Your task to perform on an android device: turn off location Image 0: 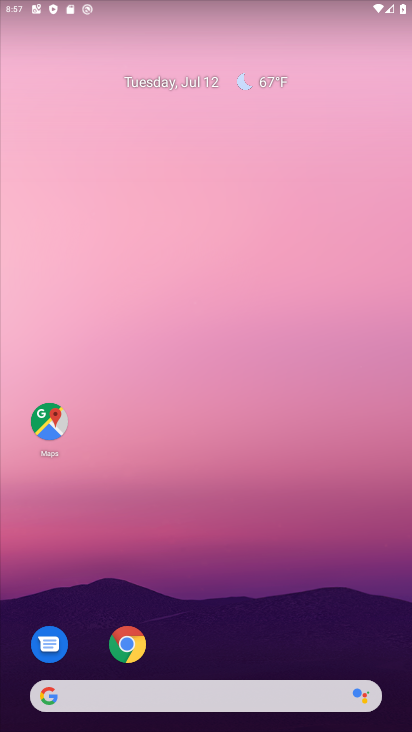
Step 0: click (341, 15)
Your task to perform on an android device: turn off location Image 1: 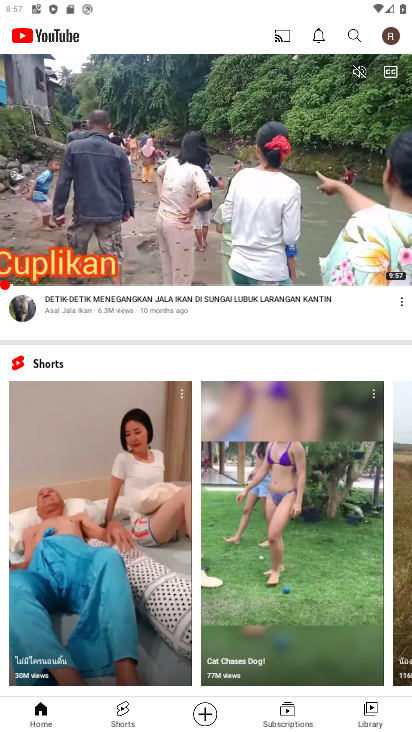
Step 1: drag from (225, 574) to (256, 138)
Your task to perform on an android device: turn off location Image 2: 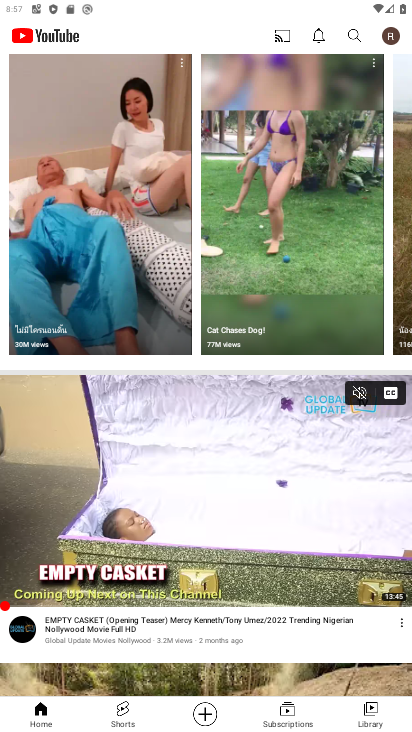
Step 2: press home button
Your task to perform on an android device: turn off location Image 3: 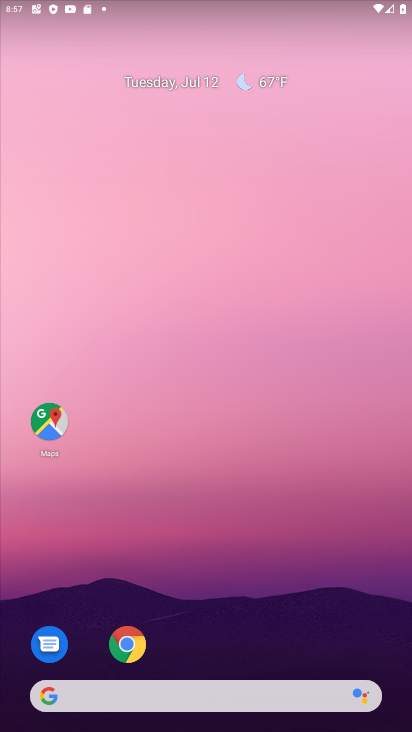
Step 3: drag from (217, 333) to (244, 151)
Your task to perform on an android device: turn off location Image 4: 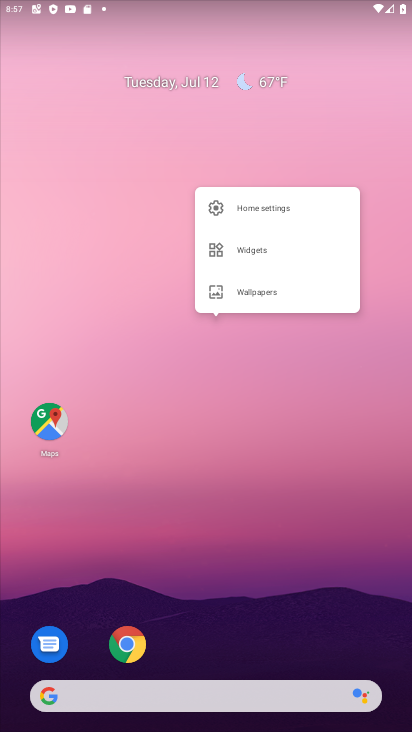
Step 4: drag from (196, 637) to (202, 191)
Your task to perform on an android device: turn off location Image 5: 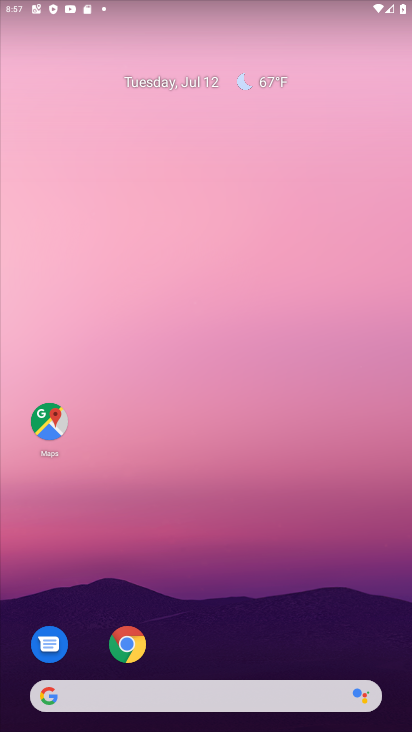
Step 5: drag from (207, 579) to (217, 185)
Your task to perform on an android device: turn off location Image 6: 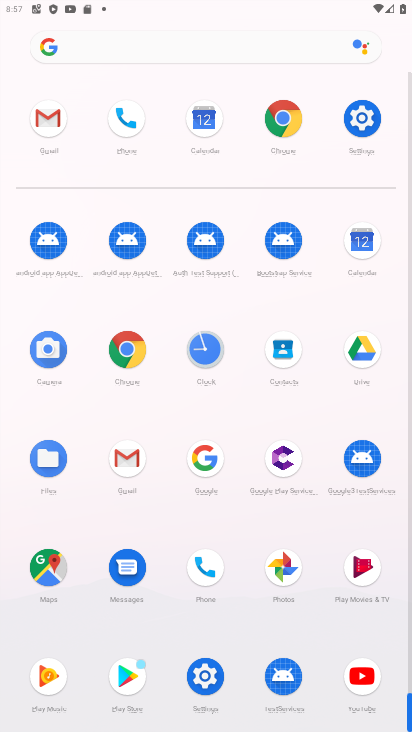
Step 6: click (365, 126)
Your task to perform on an android device: turn off location Image 7: 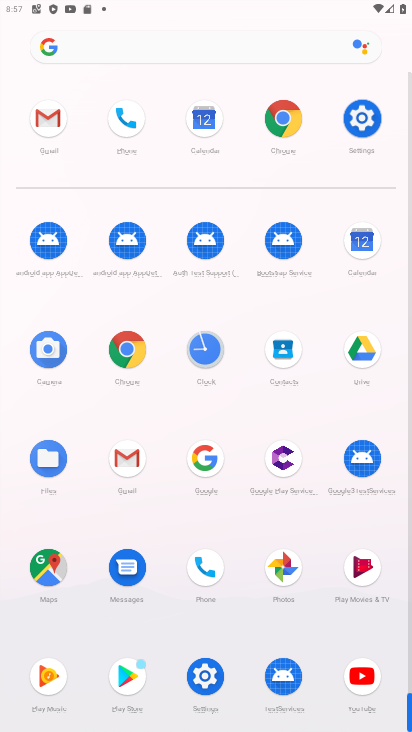
Step 7: click (366, 125)
Your task to perform on an android device: turn off location Image 8: 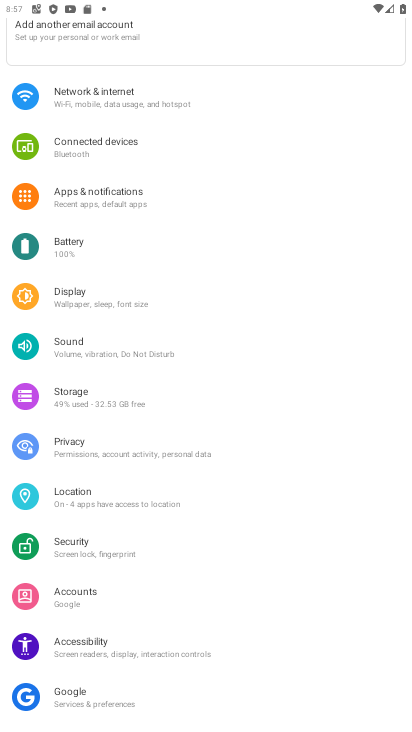
Step 8: click (90, 495)
Your task to perform on an android device: turn off location Image 9: 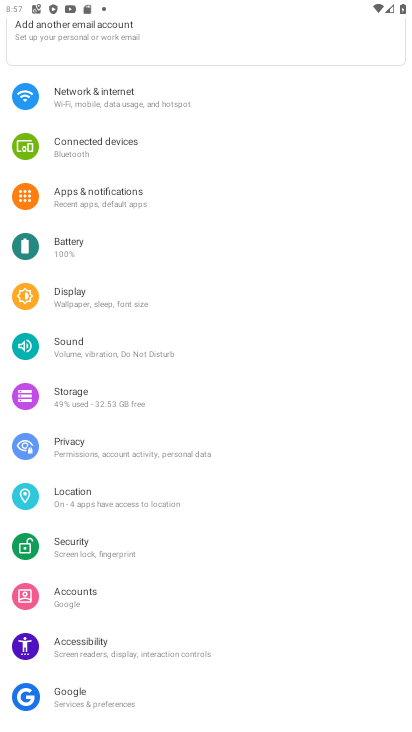
Step 9: click (89, 495)
Your task to perform on an android device: turn off location Image 10: 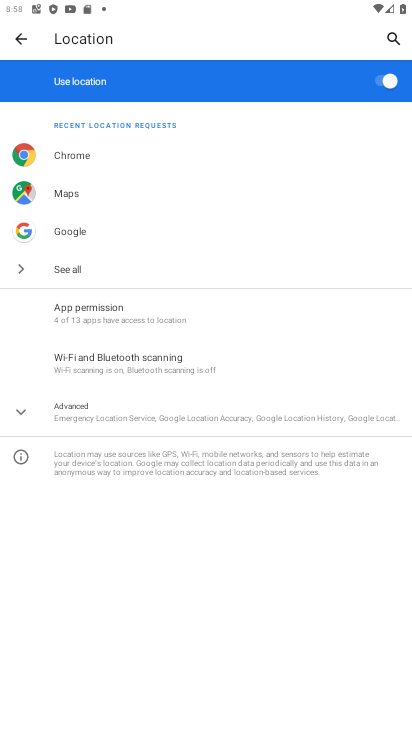
Step 10: drag from (175, 547) to (261, 212)
Your task to perform on an android device: turn off location Image 11: 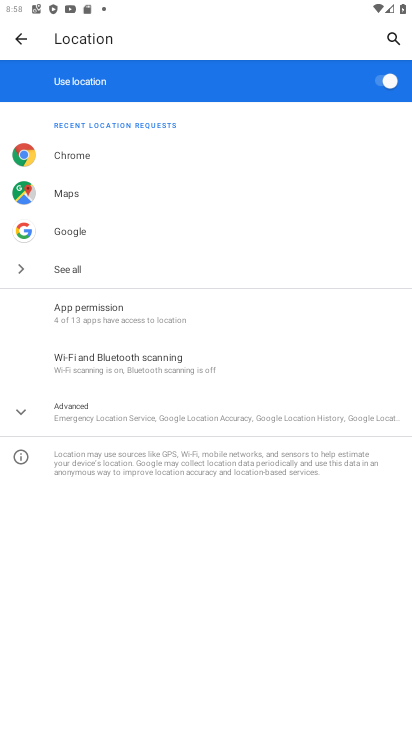
Step 11: click (383, 78)
Your task to perform on an android device: turn off location Image 12: 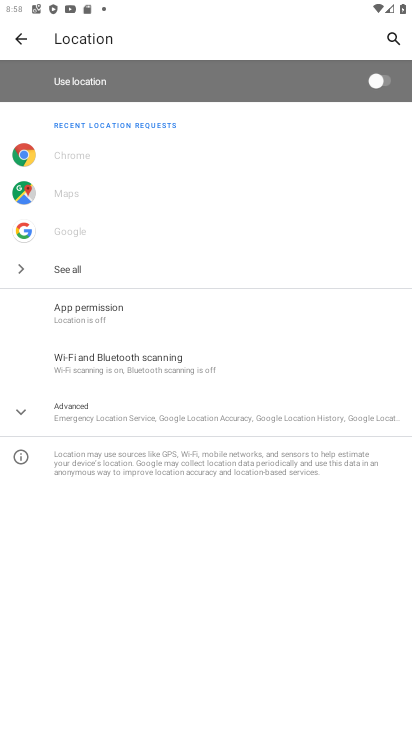
Step 12: task complete